Your task to perform on an android device: Go to internet settings Image 0: 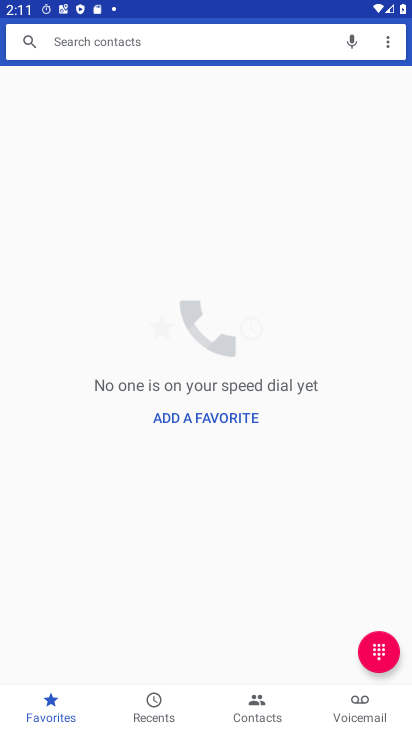
Step 0: press home button
Your task to perform on an android device: Go to internet settings Image 1: 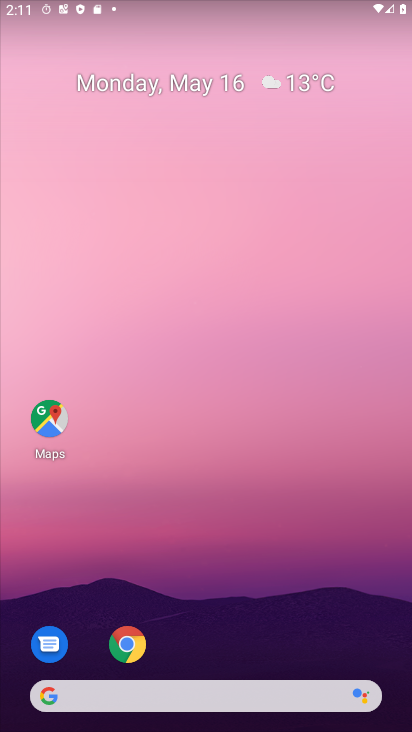
Step 1: drag from (191, 683) to (218, 130)
Your task to perform on an android device: Go to internet settings Image 2: 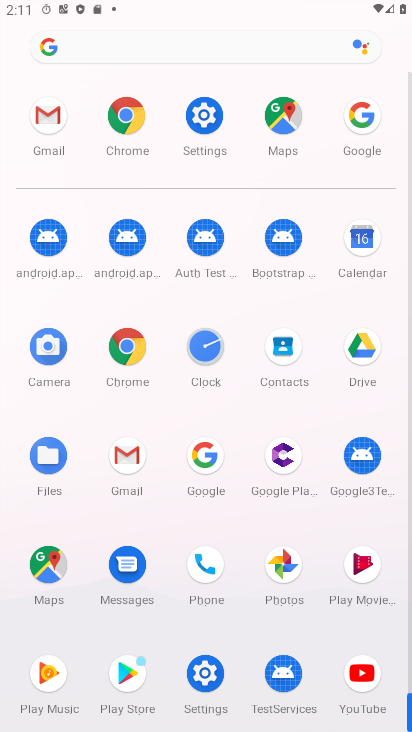
Step 2: click (213, 113)
Your task to perform on an android device: Go to internet settings Image 3: 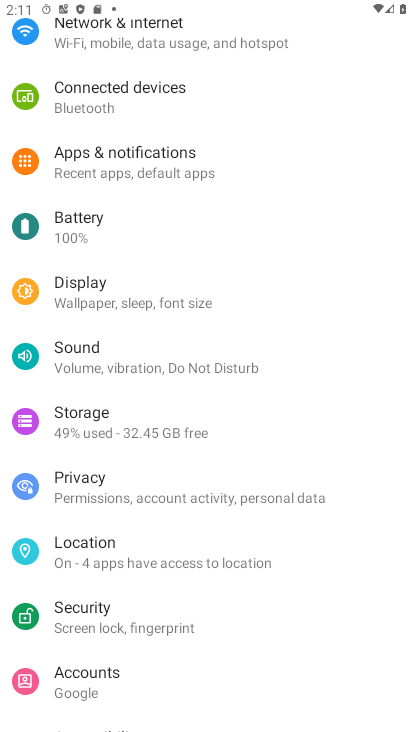
Step 3: drag from (182, 292) to (201, 515)
Your task to perform on an android device: Go to internet settings Image 4: 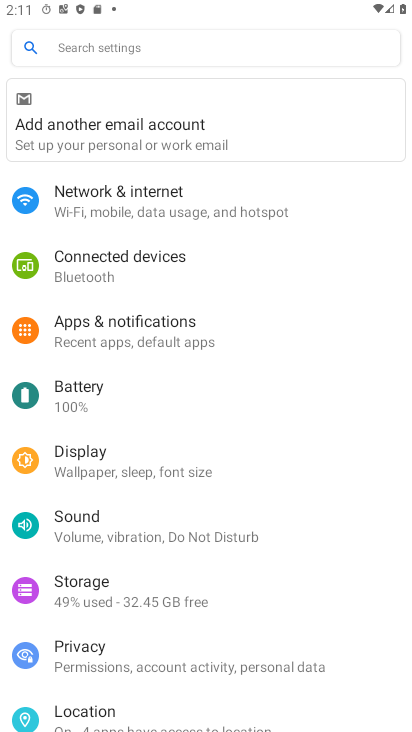
Step 4: drag from (206, 331) to (208, 604)
Your task to perform on an android device: Go to internet settings Image 5: 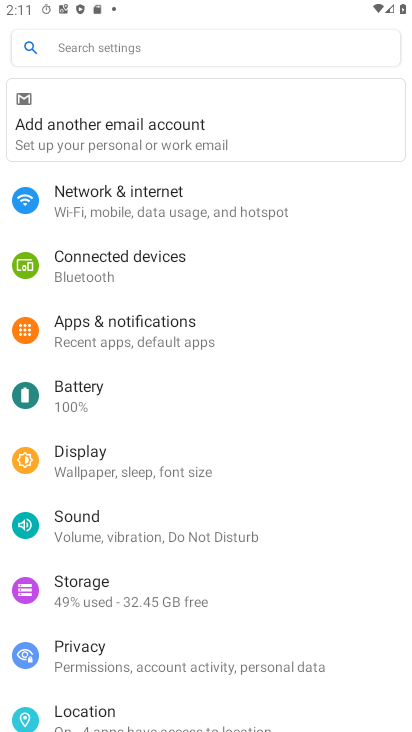
Step 5: click (250, 231)
Your task to perform on an android device: Go to internet settings Image 6: 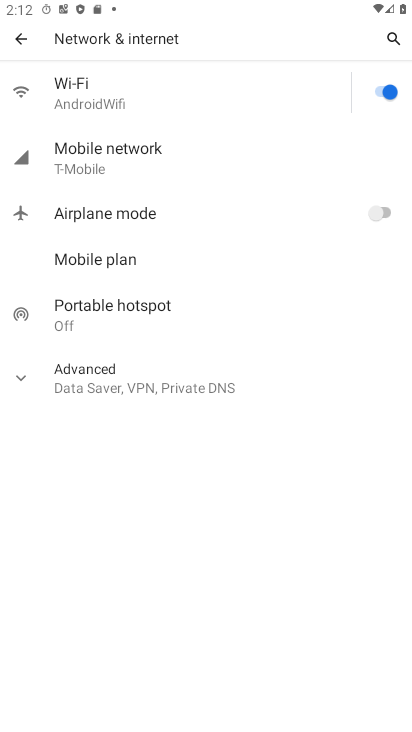
Step 6: click (157, 182)
Your task to perform on an android device: Go to internet settings Image 7: 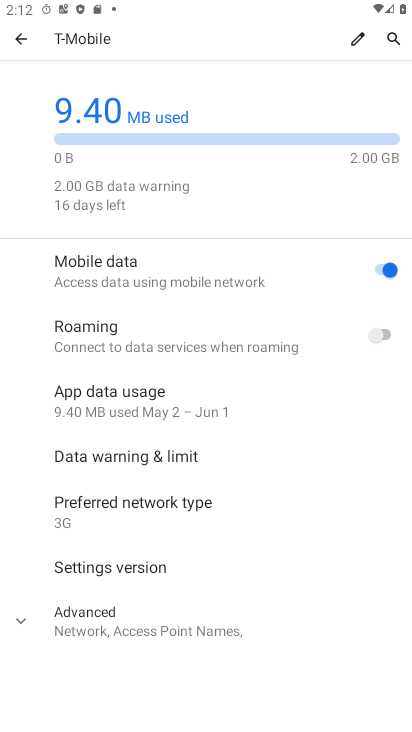
Step 7: task complete